Your task to perform on an android device: open sync settings in chrome Image 0: 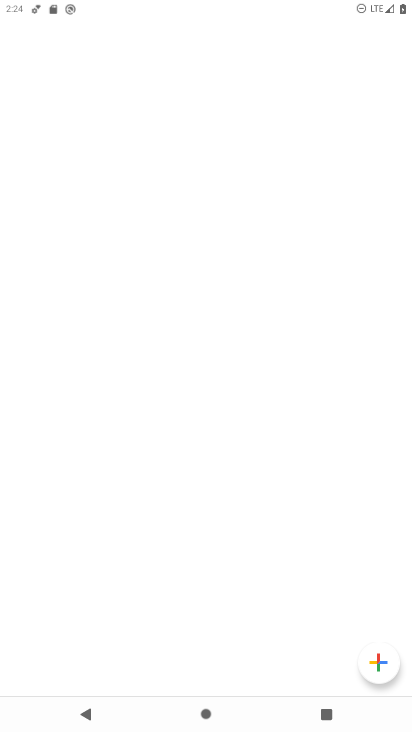
Step 0: click (328, 610)
Your task to perform on an android device: open sync settings in chrome Image 1: 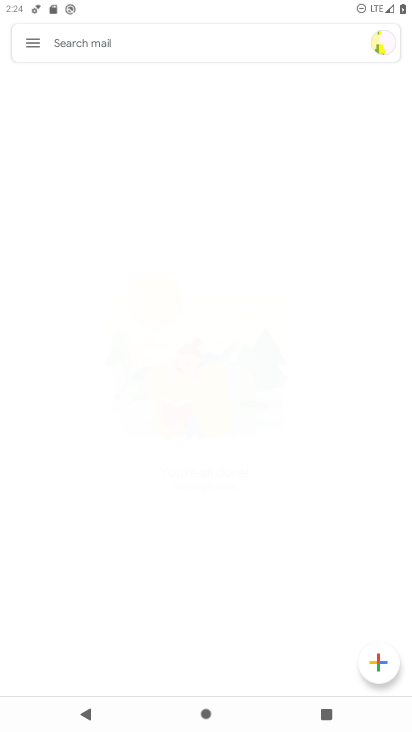
Step 1: press home button
Your task to perform on an android device: open sync settings in chrome Image 2: 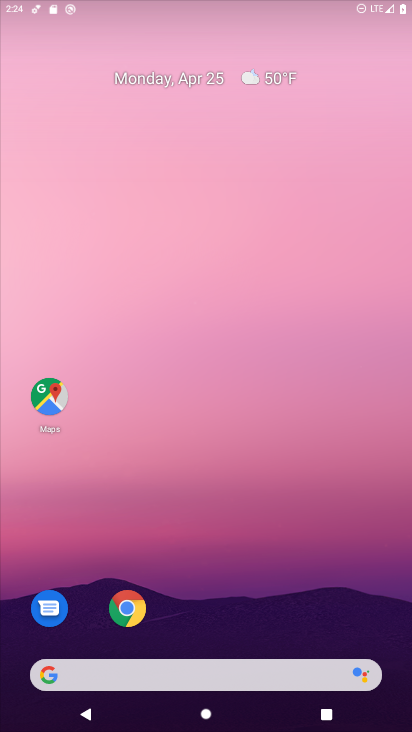
Step 2: drag from (338, 626) to (243, 24)
Your task to perform on an android device: open sync settings in chrome Image 3: 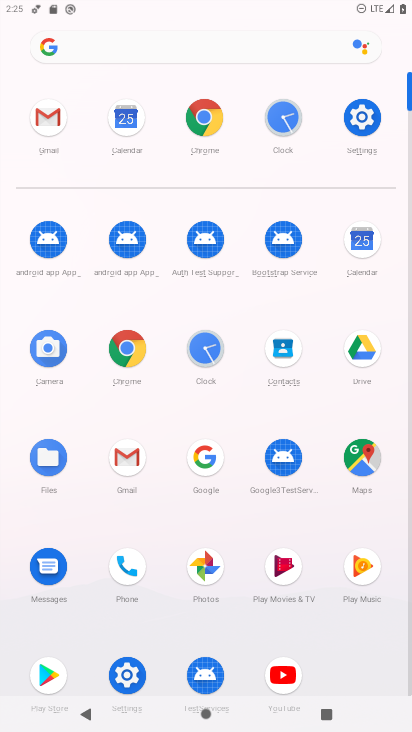
Step 3: click (133, 345)
Your task to perform on an android device: open sync settings in chrome Image 4: 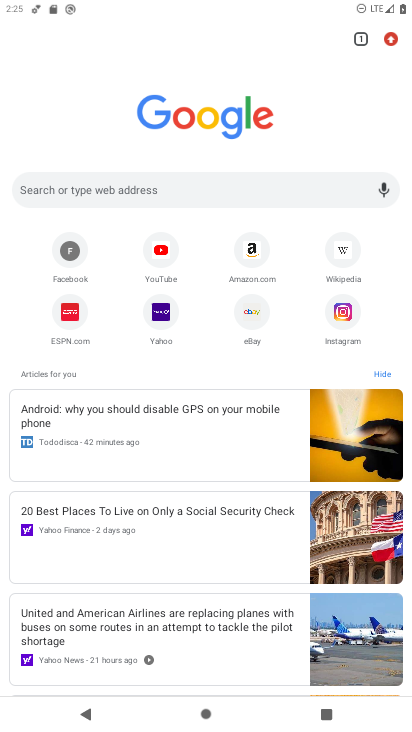
Step 4: click (392, 35)
Your task to perform on an android device: open sync settings in chrome Image 5: 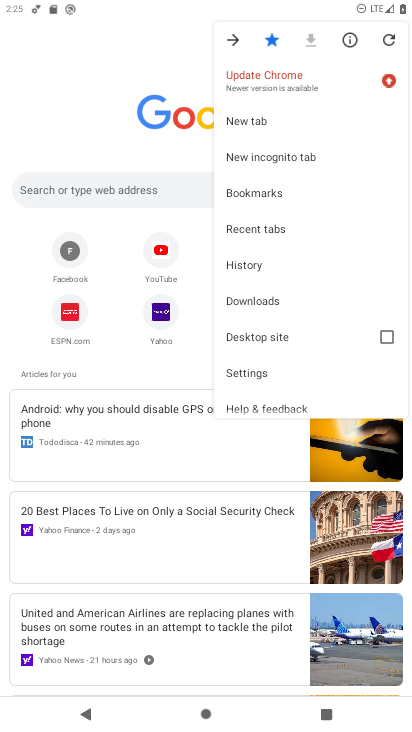
Step 5: click (288, 374)
Your task to perform on an android device: open sync settings in chrome Image 6: 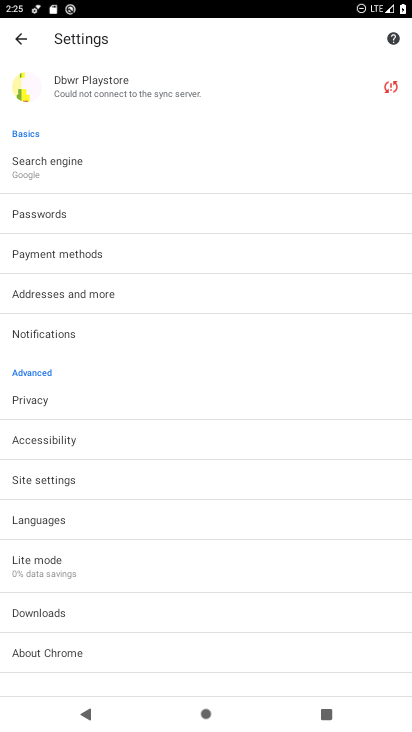
Step 6: drag from (115, 622) to (235, 264)
Your task to perform on an android device: open sync settings in chrome Image 7: 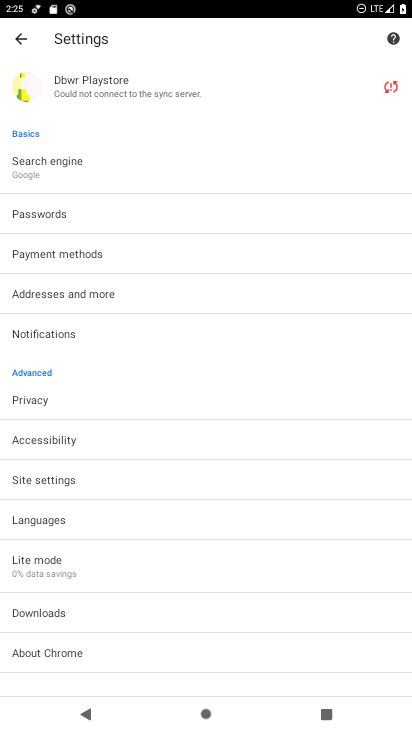
Step 7: click (113, 479)
Your task to perform on an android device: open sync settings in chrome Image 8: 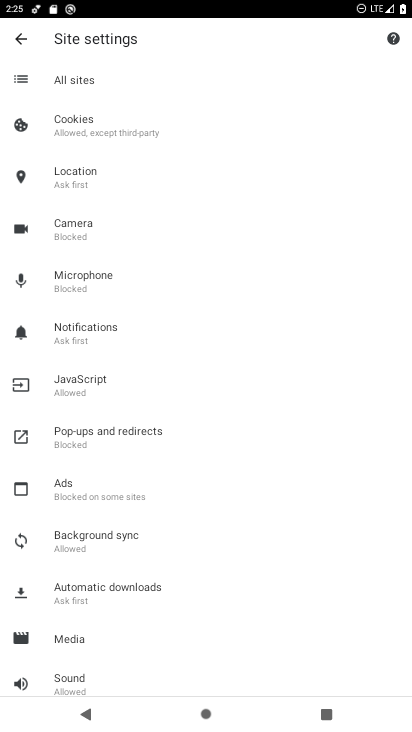
Step 8: click (116, 549)
Your task to perform on an android device: open sync settings in chrome Image 9: 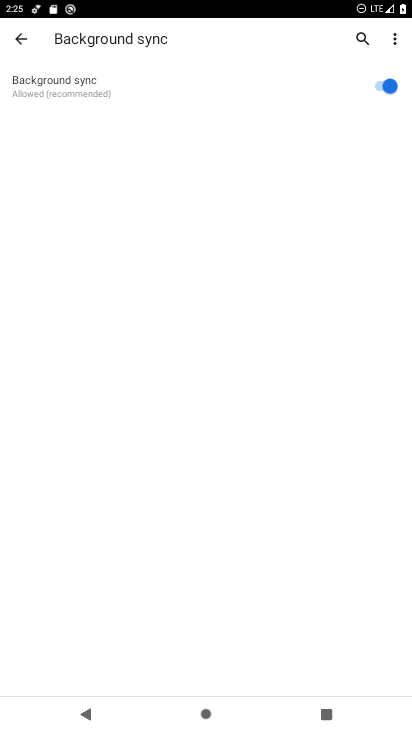
Step 9: task complete